Your task to perform on an android device: Go to Google maps Image 0: 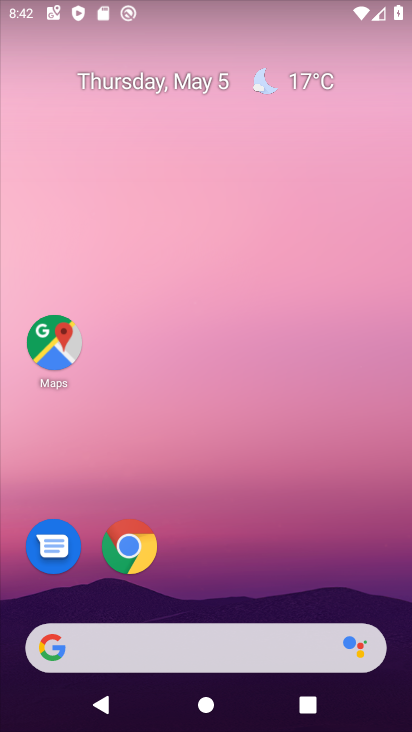
Step 0: drag from (154, 645) to (310, 57)
Your task to perform on an android device: Go to Google maps Image 1: 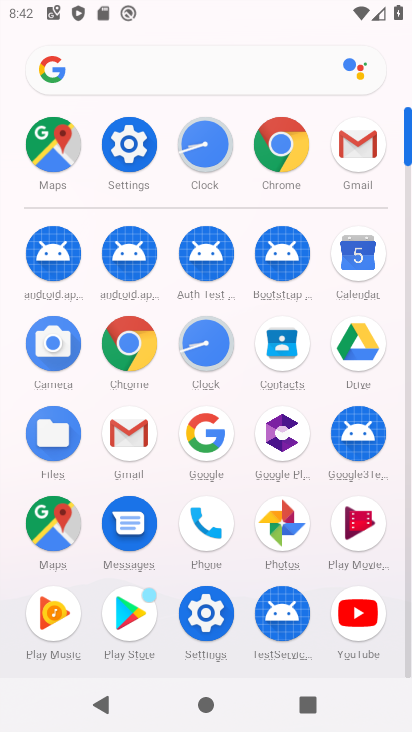
Step 1: click (50, 525)
Your task to perform on an android device: Go to Google maps Image 2: 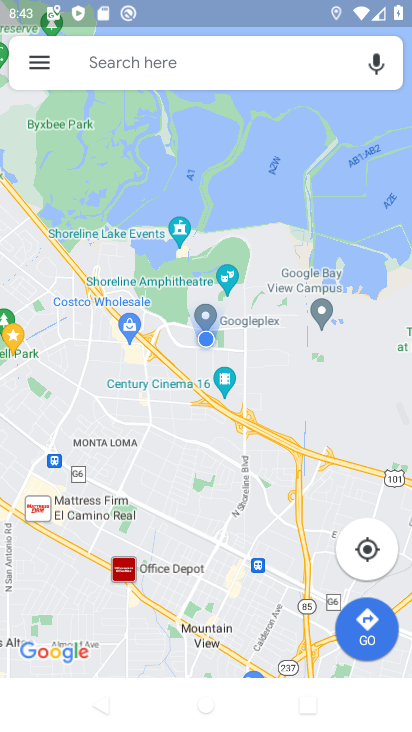
Step 2: task complete